Your task to perform on an android device: change the clock style Image 0: 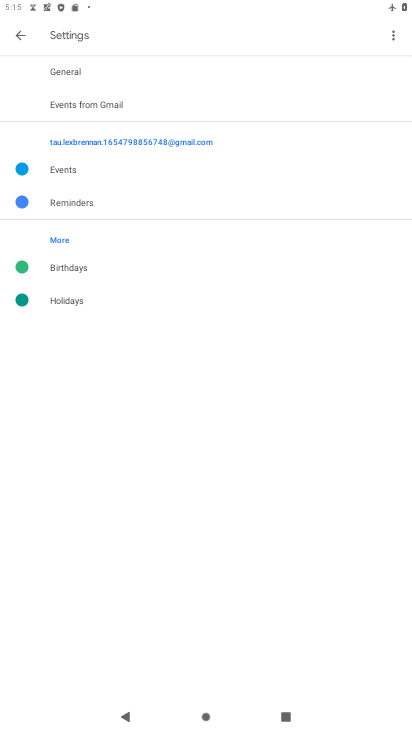
Step 0: press home button
Your task to perform on an android device: change the clock style Image 1: 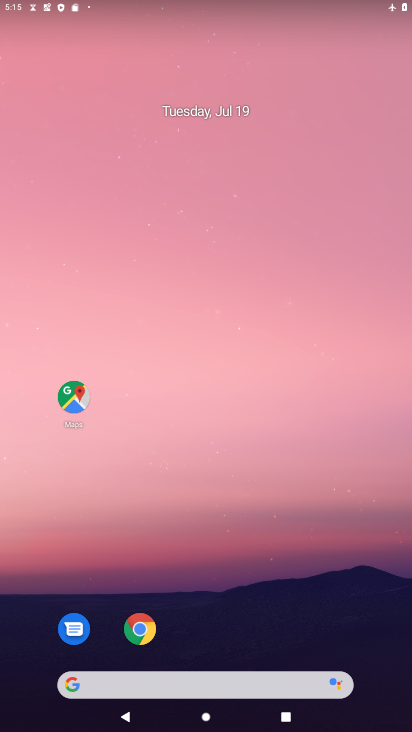
Step 1: drag from (304, 619) to (319, 80)
Your task to perform on an android device: change the clock style Image 2: 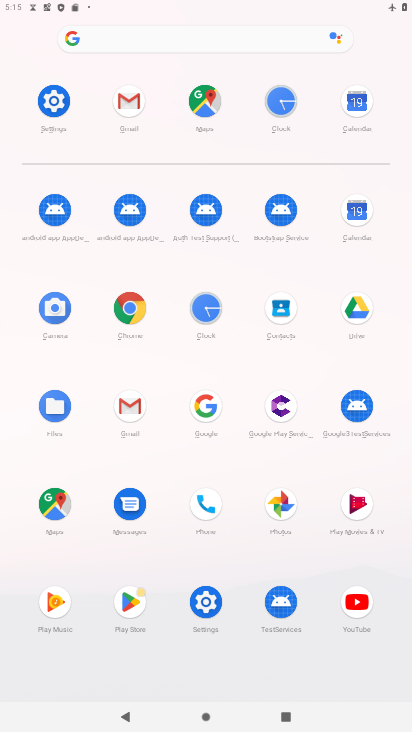
Step 2: click (278, 97)
Your task to perform on an android device: change the clock style Image 3: 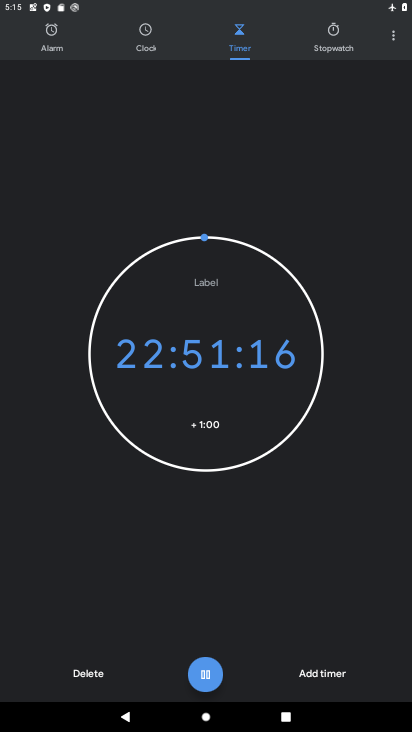
Step 3: click (393, 39)
Your task to perform on an android device: change the clock style Image 4: 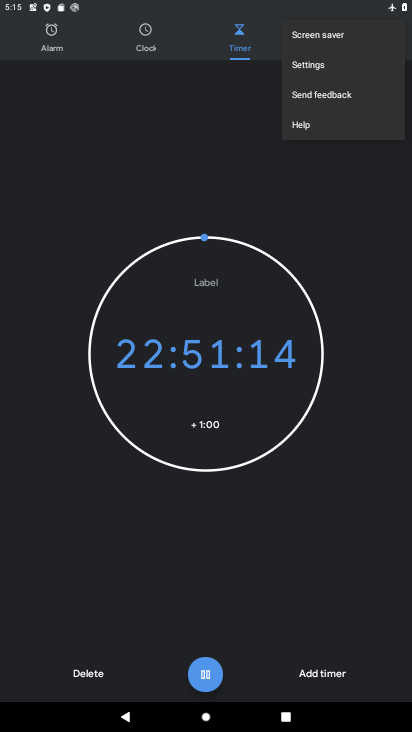
Step 4: click (310, 67)
Your task to perform on an android device: change the clock style Image 5: 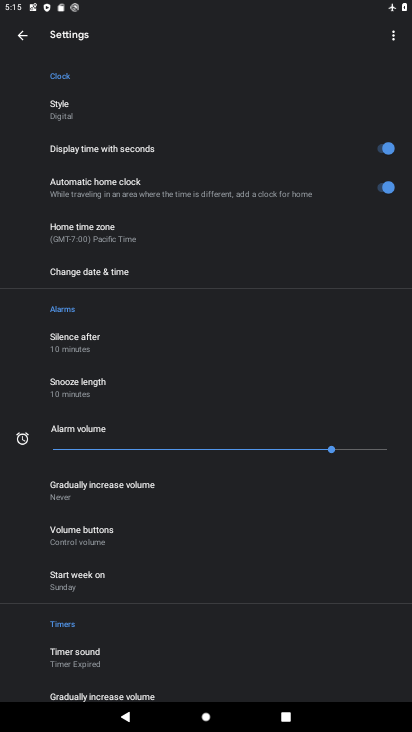
Step 5: click (68, 118)
Your task to perform on an android device: change the clock style Image 6: 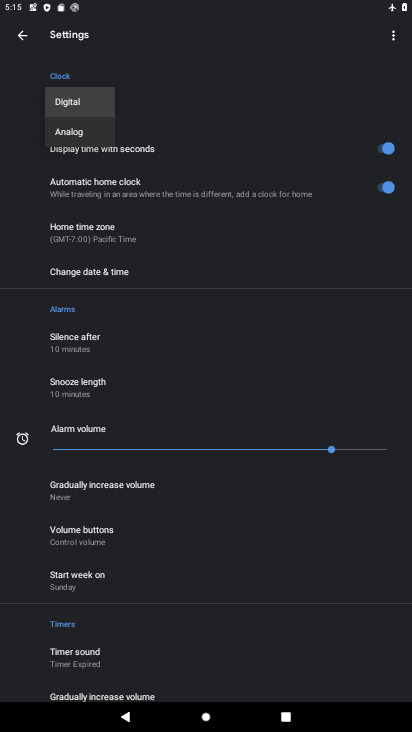
Step 6: click (68, 134)
Your task to perform on an android device: change the clock style Image 7: 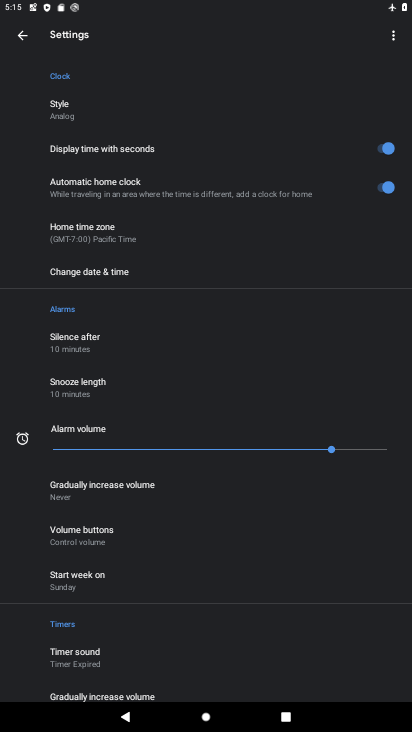
Step 7: task complete